Your task to perform on an android device: How do I get to the nearest Lowe's? Image 0: 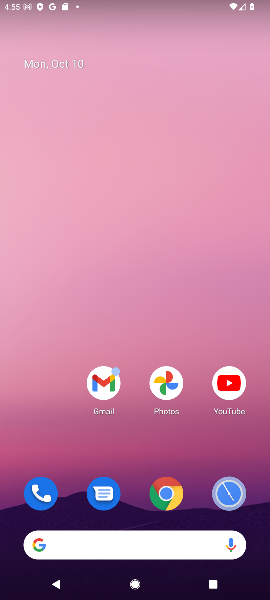
Step 0: click (135, 543)
Your task to perform on an android device: How do I get to the nearest Lowe's? Image 1: 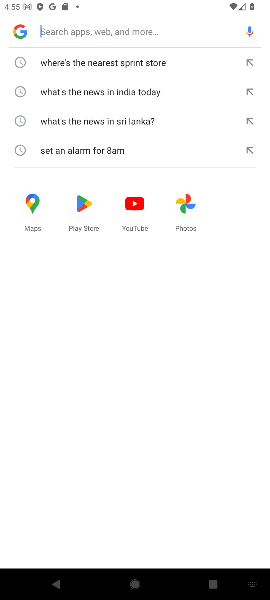
Step 1: type "How do I get to the nearest Lowe's?"
Your task to perform on an android device: How do I get to the nearest Lowe's? Image 2: 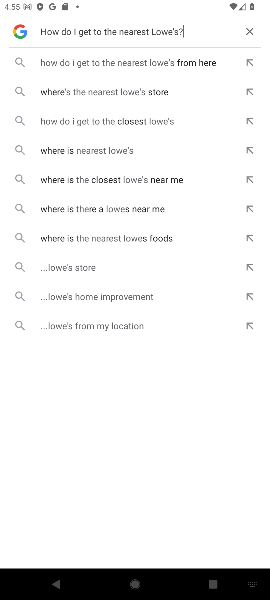
Step 2: click (161, 55)
Your task to perform on an android device: How do I get to the nearest Lowe's? Image 3: 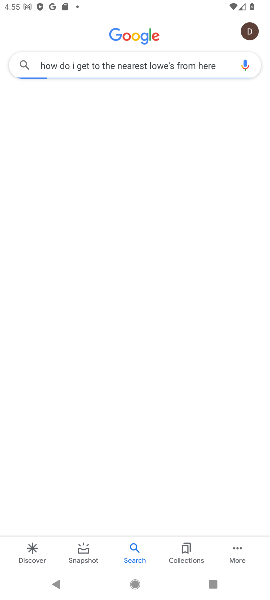
Step 3: task complete